Your task to perform on an android device: Clear all items from cart on target.com. Search for "logitech g903" on target.com, select the first entry, add it to the cart, then select checkout. Image 0: 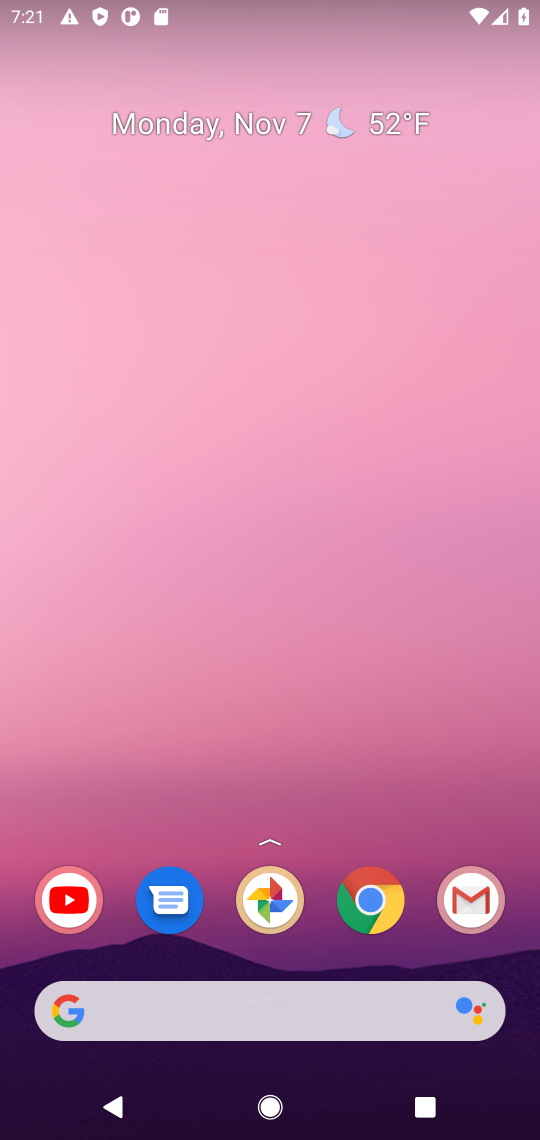
Step 0: click (377, 905)
Your task to perform on an android device: Clear all items from cart on target.com. Search for "logitech g903" on target.com, select the first entry, add it to the cart, then select checkout. Image 1: 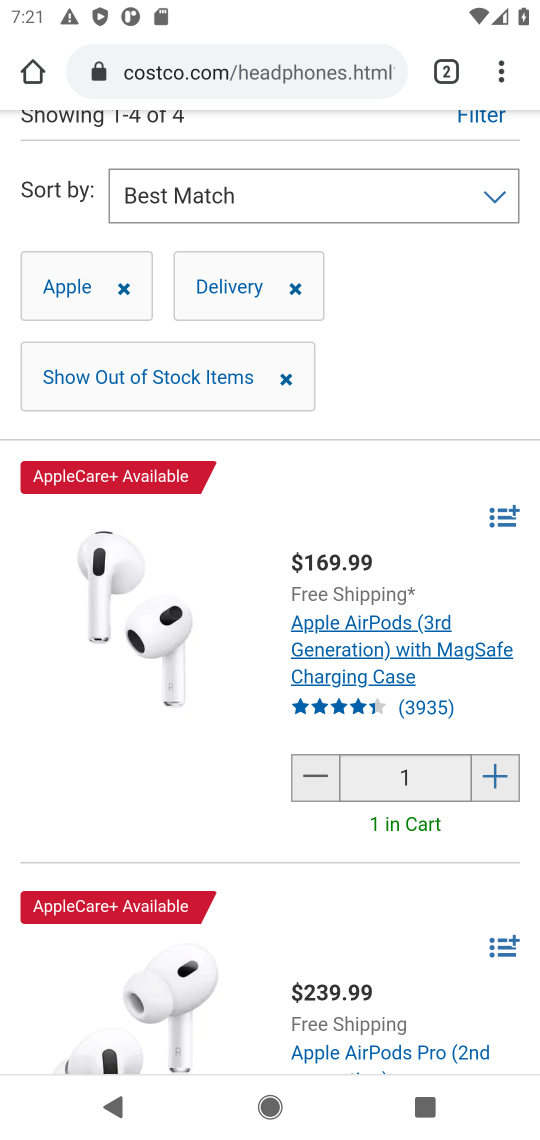
Step 1: click (447, 78)
Your task to perform on an android device: Clear all items from cart on target.com. Search for "logitech g903" on target.com, select the first entry, add it to the cart, then select checkout. Image 2: 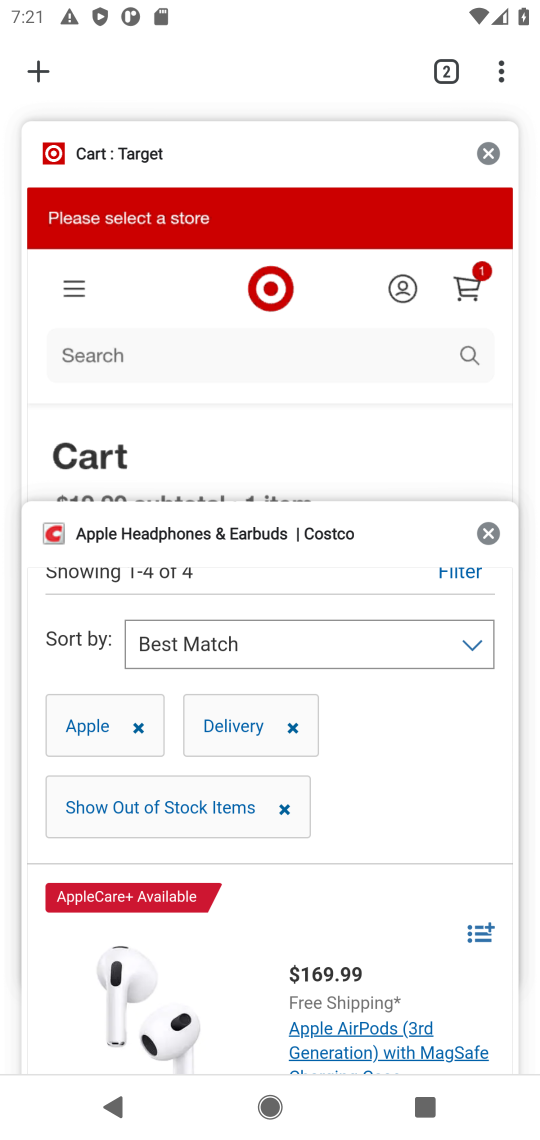
Step 2: click (46, 63)
Your task to perform on an android device: Clear all items from cart on target.com. Search for "logitech g903" on target.com, select the first entry, add it to the cart, then select checkout. Image 3: 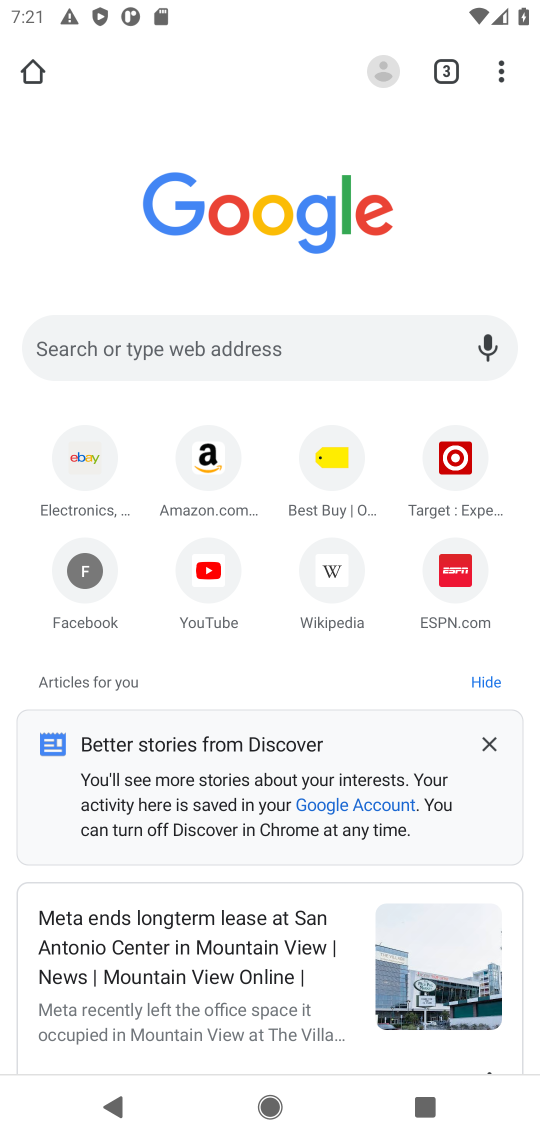
Step 3: click (456, 450)
Your task to perform on an android device: Clear all items from cart on target.com. Search for "logitech g903" on target.com, select the first entry, add it to the cart, then select checkout. Image 4: 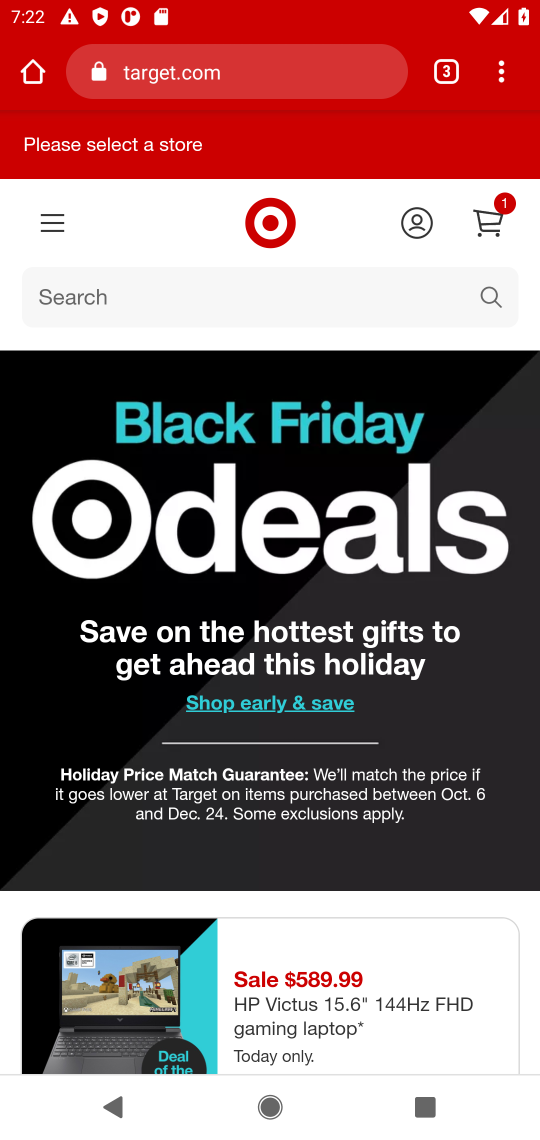
Step 4: click (118, 296)
Your task to perform on an android device: Clear all items from cart on target.com. Search for "logitech g903" on target.com, select the first entry, add it to the cart, then select checkout. Image 5: 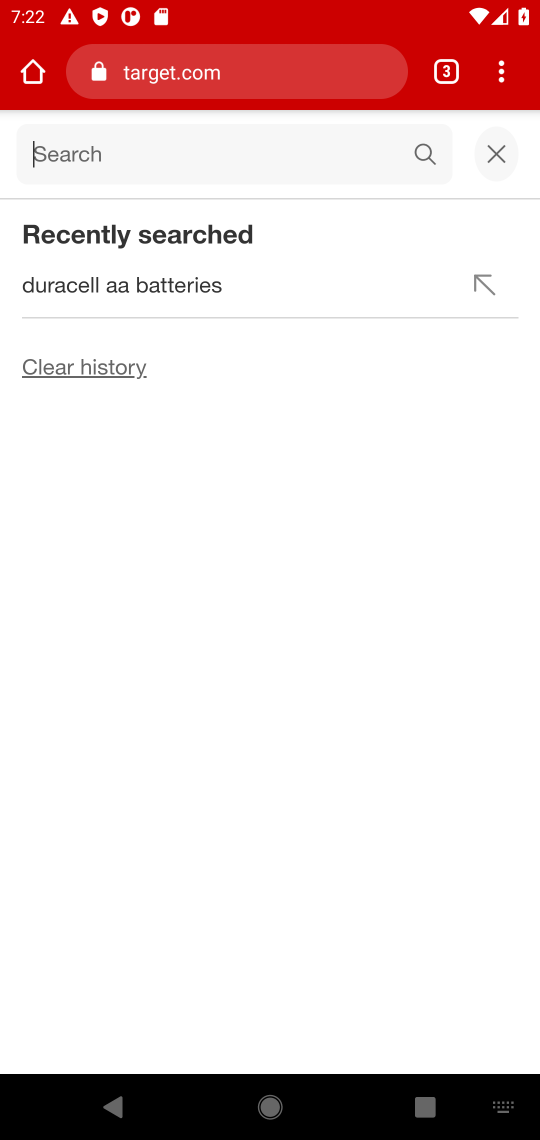
Step 5: click (42, 151)
Your task to perform on an android device: Clear all items from cart on target.com. Search for "logitech g903" on target.com, select the first entry, add it to the cart, then select checkout. Image 6: 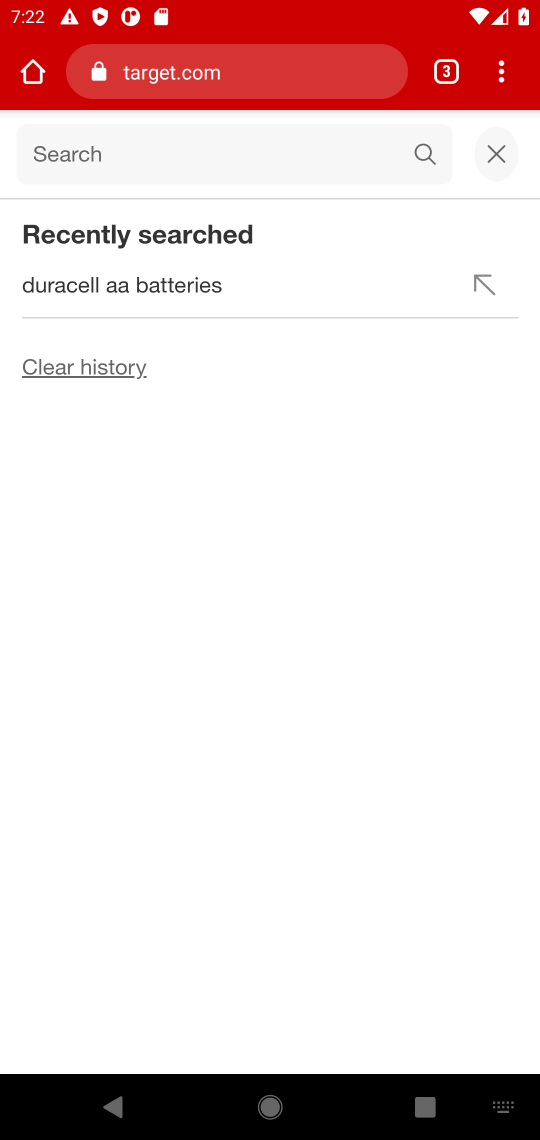
Step 6: type "logitech g903"
Your task to perform on an android device: Clear all items from cart on target.com. Search for "logitech g903" on target.com, select the first entry, add it to the cart, then select checkout. Image 7: 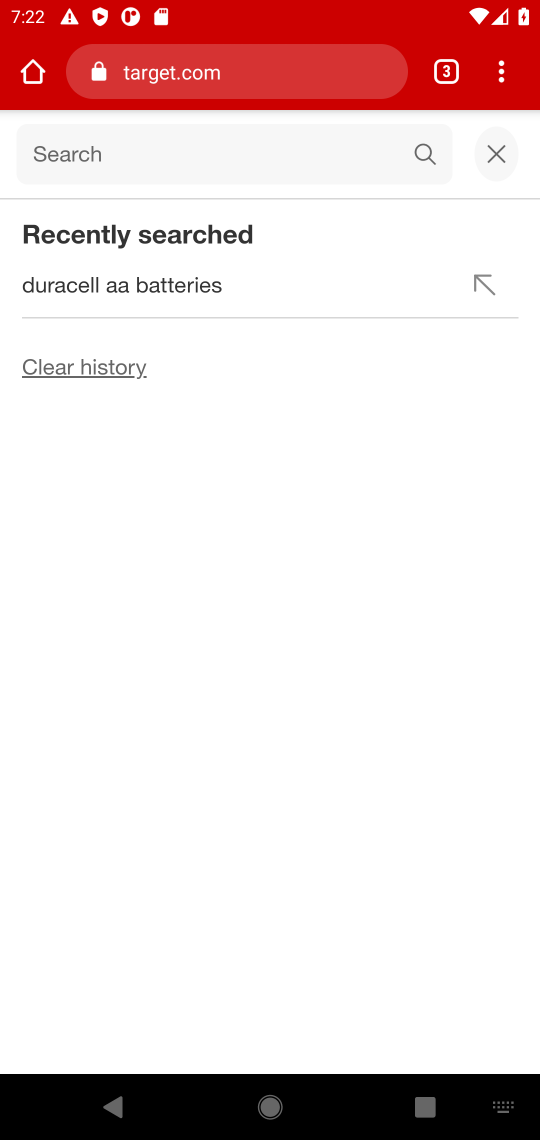
Step 7: click (306, 665)
Your task to perform on an android device: Clear all items from cart on target.com. Search for "logitech g903" on target.com, select the first entry, add it to the cart, then select checkout. Image 8: 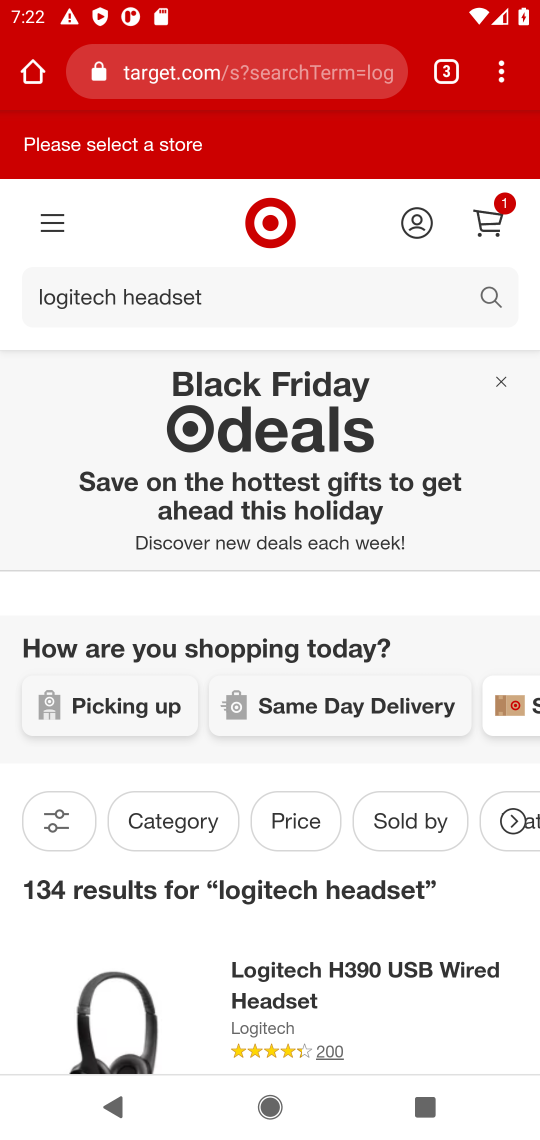
Step 8: click (322, 289)
Your task to perform on an android device: Clear all items from cart on target.com. Search for "logitech g903" on target.com, select the first entry, add it to the cart, then select checkout. Image 9: 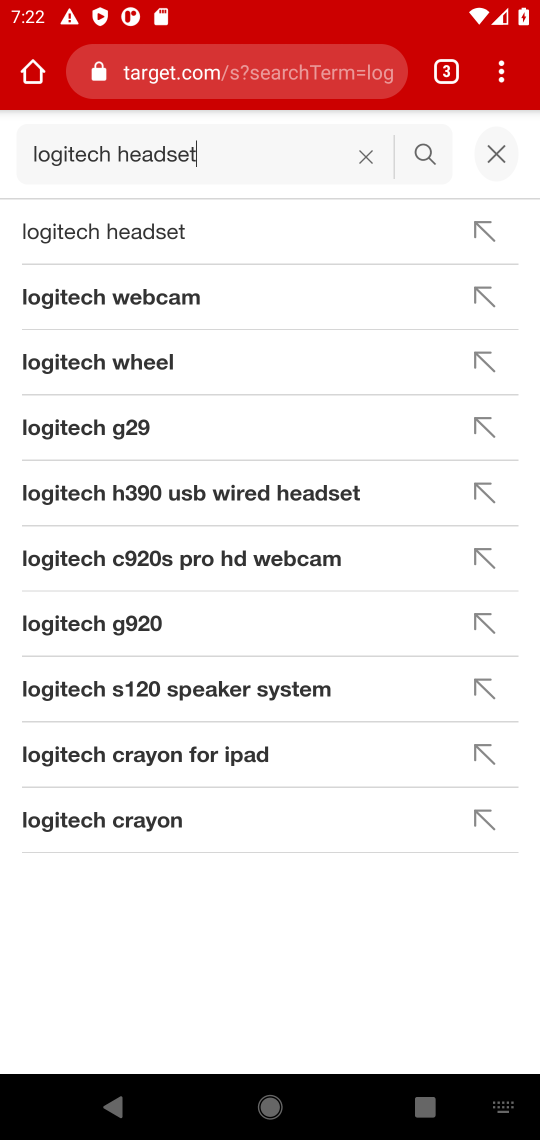
Step 9: click (499, 164)
Your task to perform on an android device: Clear all items from cart on target.com. Search for "logitech g903" on target.com, select the first entry, add it to the cart, then select checkout. Image 10: 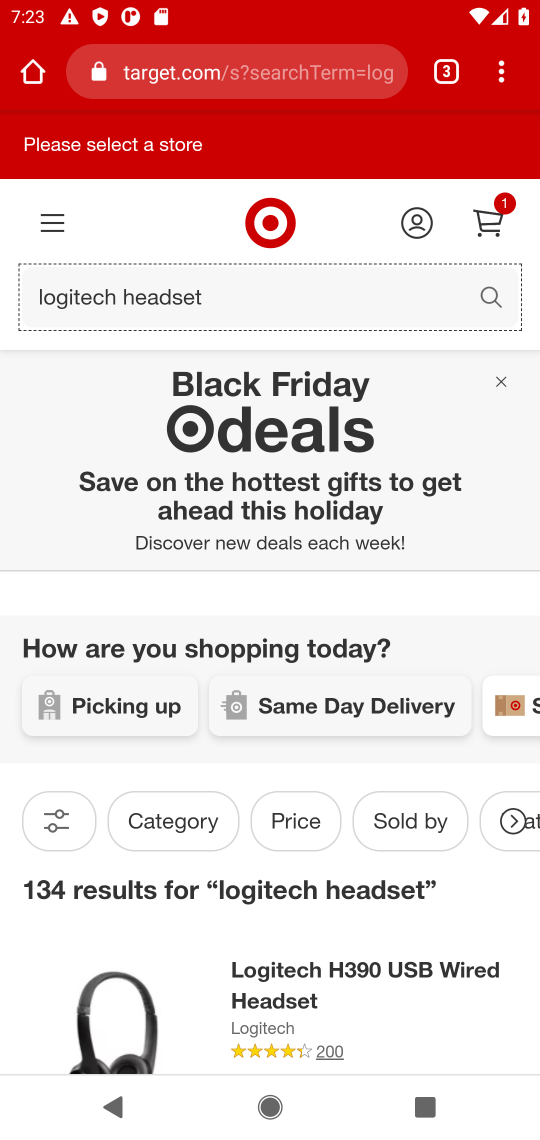
Step 10: click (247, 310)
Your task to perform on an android device: Clear all items from cart on target.com. Search for "logitech g903" on target.com, select the first entry, add it to the cart, then select checkout. Image 11: 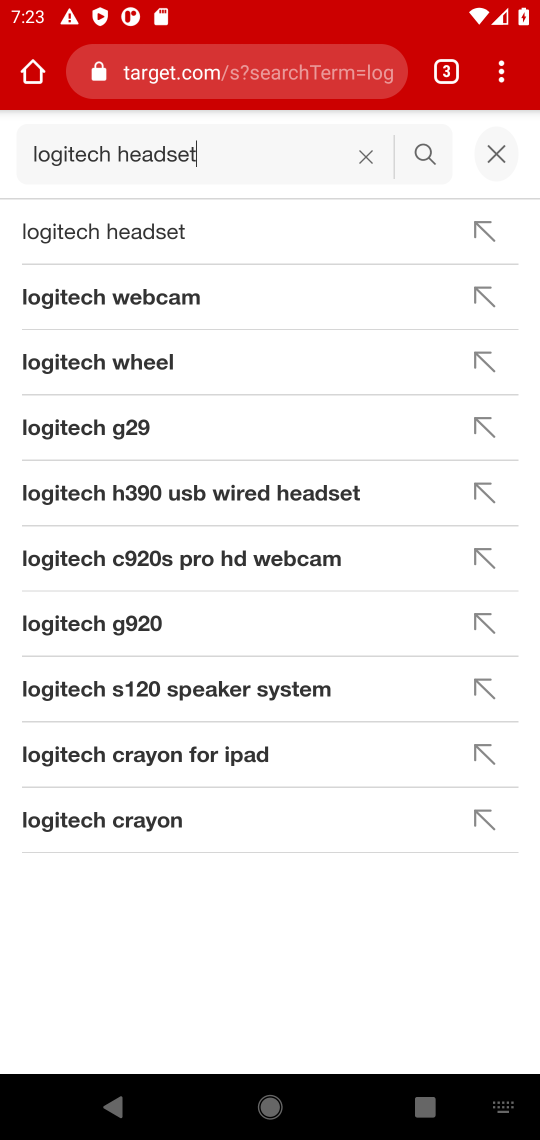
Step 11: click (488, 142)
Your task to perform on an android device: Clear all items from cart on target.com. Search for "logitech g903" on target.com, select the first entry, add it to the cart, then select checkout. Image 12: 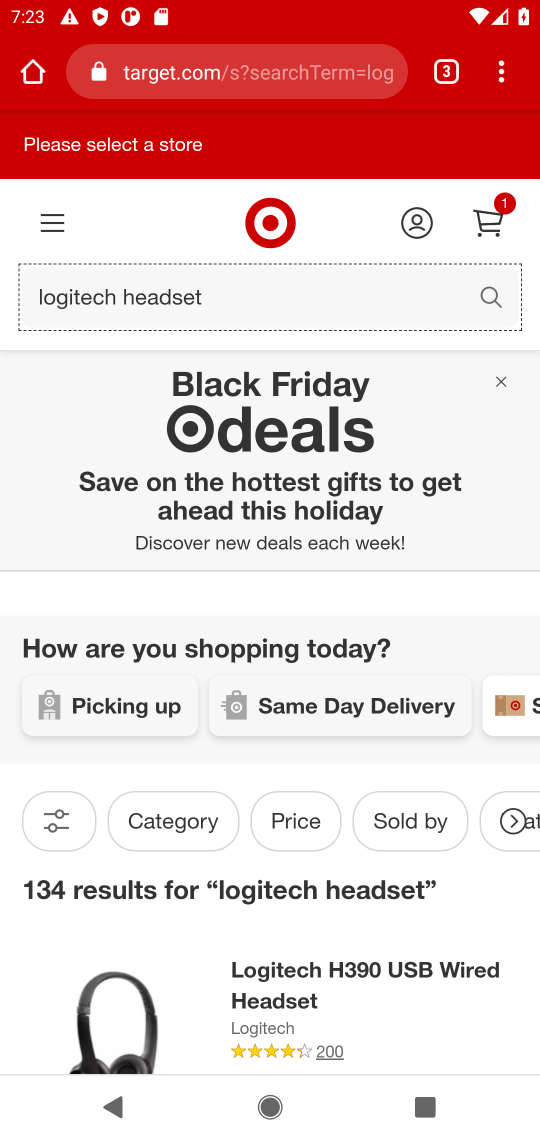
Step 12: click (114, 291)
Your task to perform on an android device: Clear all items from cart on target.com. Search for "logitech g903" on target.com, select the first entry, add it to the cart, then select checkout. Image 13: 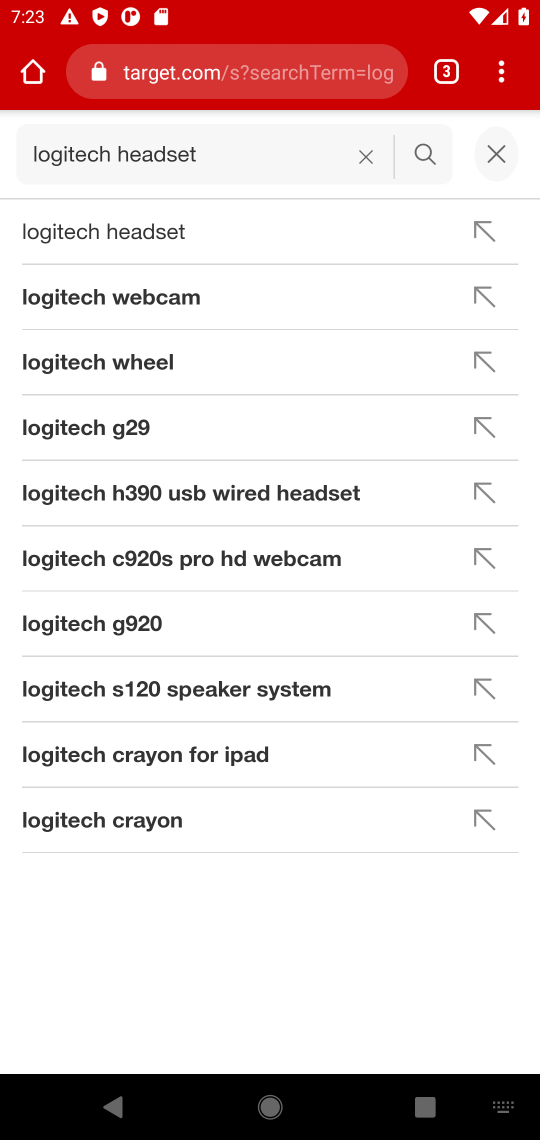
Step 13: click (483, 162)
Your task to perform on an android device: Clear all items from cart on target.com. Search for "logitech g903" on target.com, select the first entry, add it to the cart, then select checkout. Image 14: 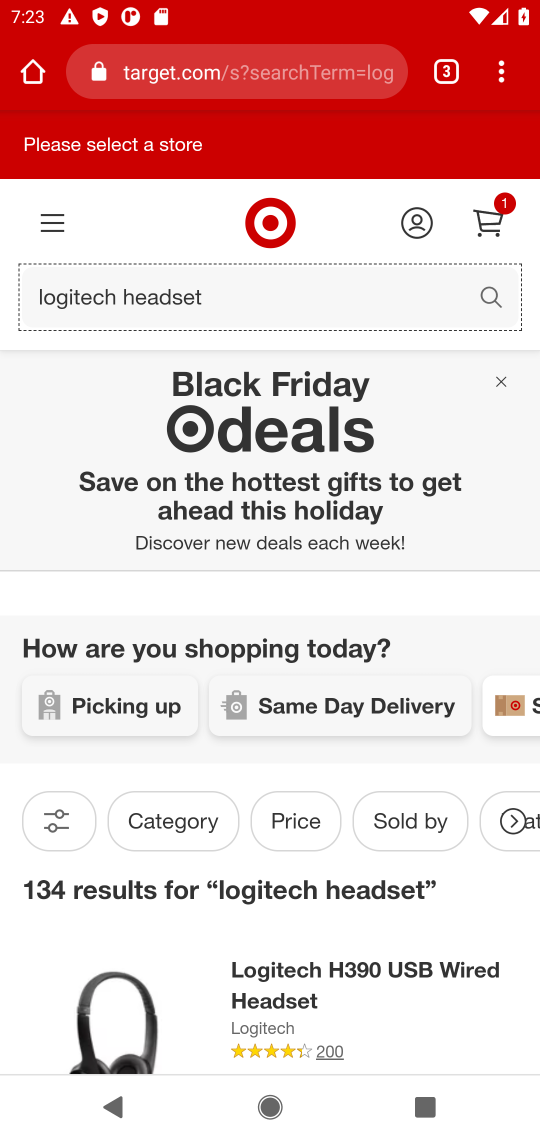
Step 14: click (303, 298)
Your task to perform on an android device: Clear all items from cart on target.com. Search for "logitech g903" on target.com, select the first entry, add it to the cart, then select checkout. Image 15: 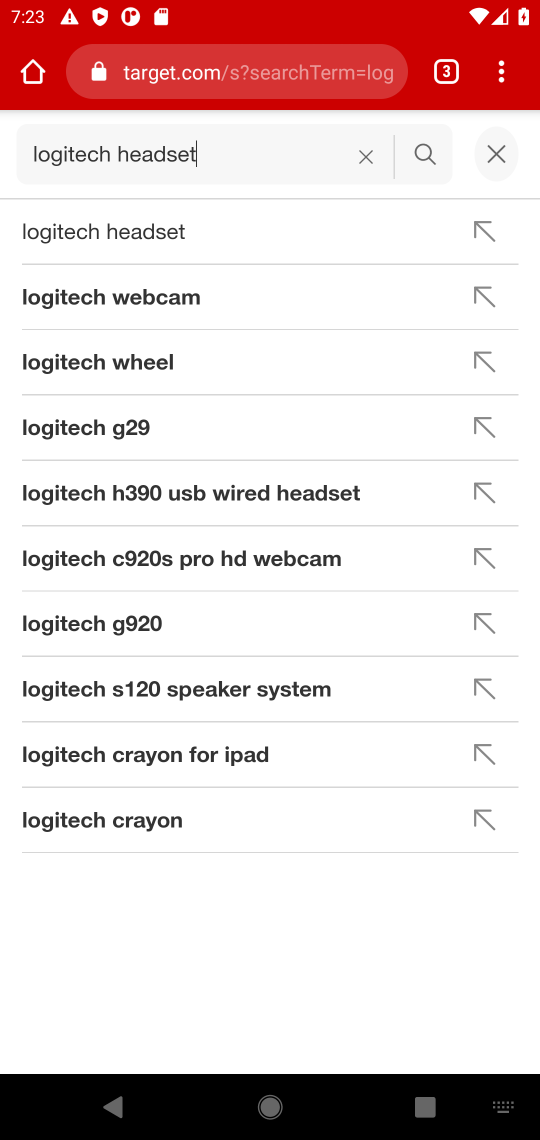
Step 15: click (352, 159)
Your task to perform on an android device: Clear all items from cart on target.com. Search for "logitech g903" on target.com, select the first entry, add it to the cart, then select checkout. Image 16: 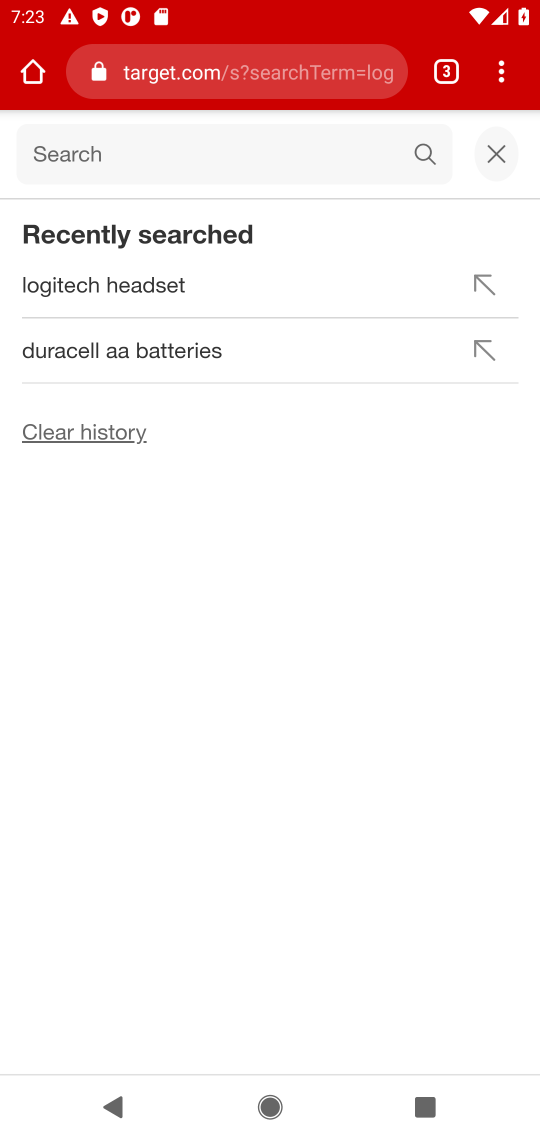
Step 16: click (116, 160)
Your task to perform on an android device: Clear all items from cart on target.com. Search for "logitech g903" on target.com, select the first entry, add it to the cart, then select checkout. Image 17: 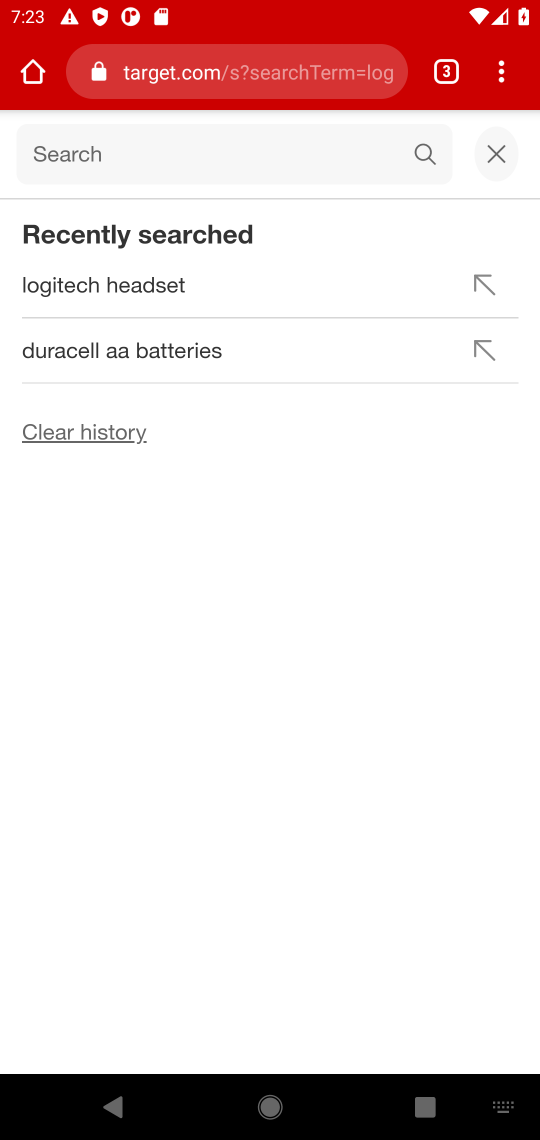
Step 17: type "logitech g903"
Your task to perform on an android device: Clear all items from cart on target.com. Search for "logitech g903" on target.com, select the first entry, add it to the cart, then select checkout. Image 18: 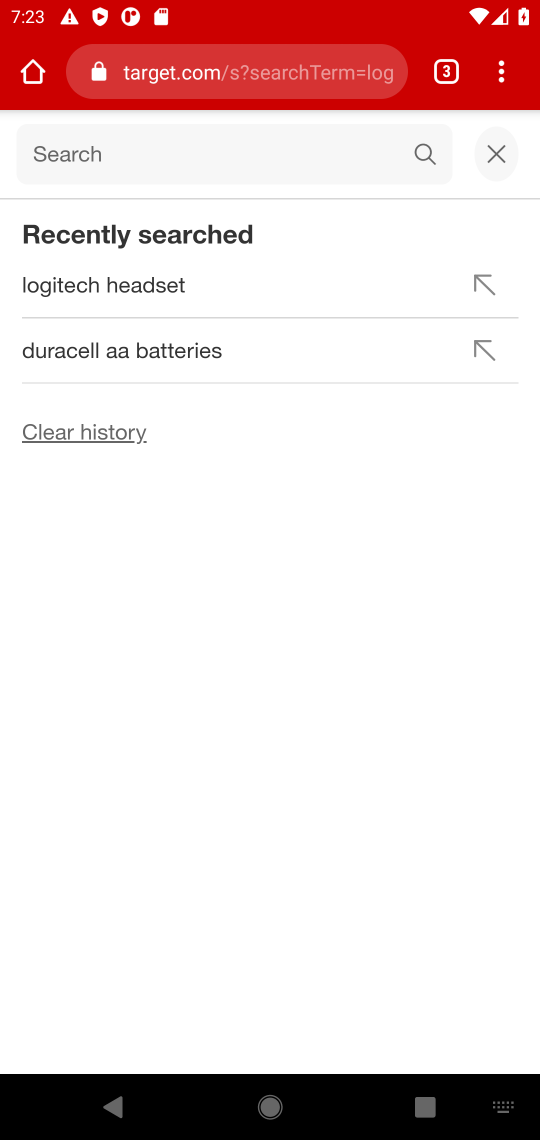
Step 18: click (239, 757)
Your task to perform on an android device: Clear all items from cart on target.com. Search for "logitech g903" on target.com, select the first entry, add it to the cart, then select checkout. Image 19: 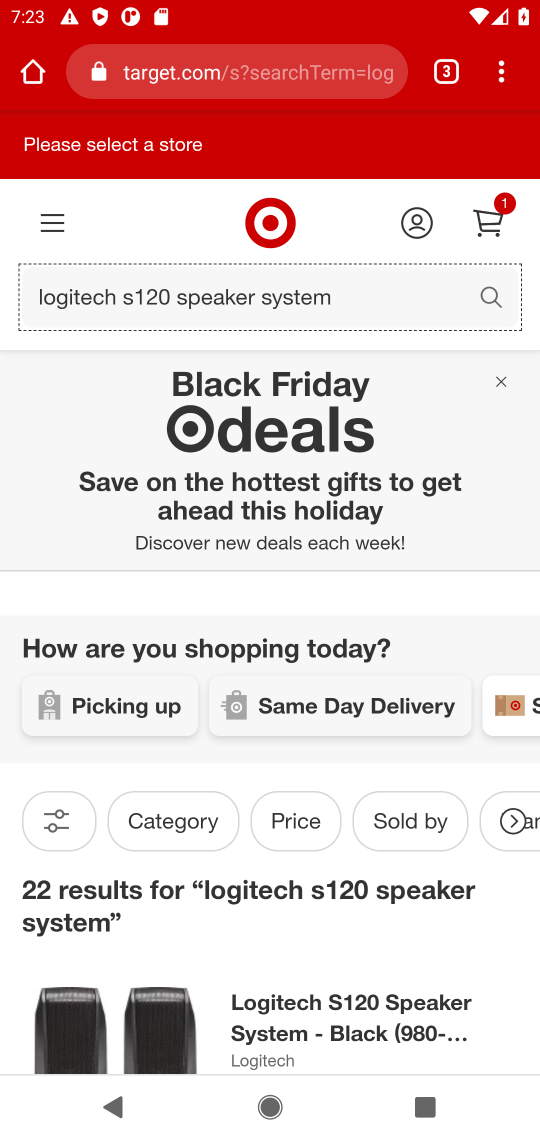
Step 19: click (378, 324)
Your task to perform on an android device: Clear all items from cart on target.com. Search for "logitech g903" on target.com, select the first entry, add it to the cart, then select checkout. Image 20: 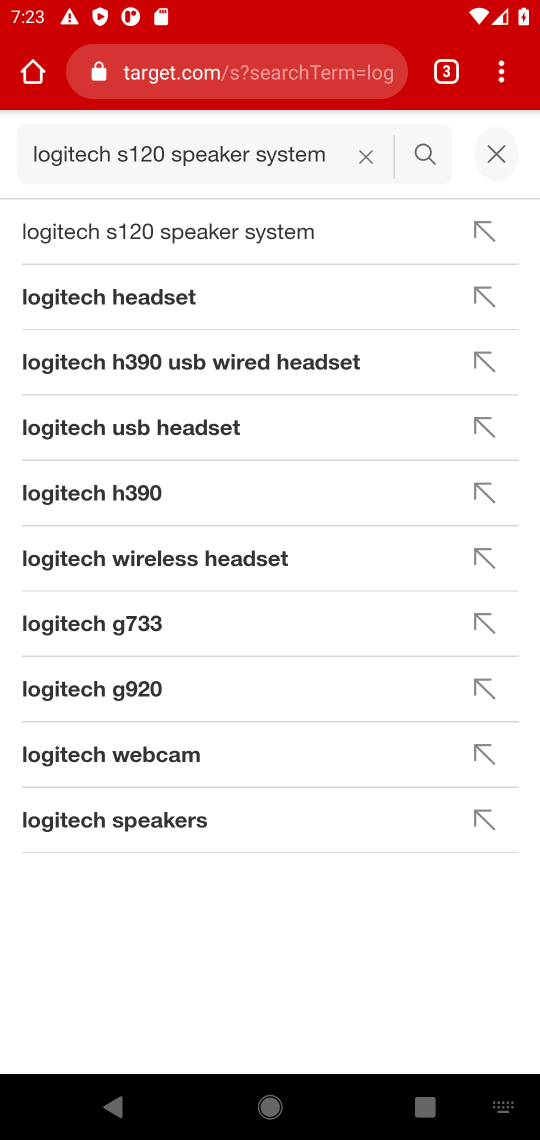
Step 20: click (502, 148)
Your task to perform on an android device: Clear all items from cart on target.com. Search for "logitech g903" on target.com, select the first entry, add it to the cart, then select checkout. Image 21: 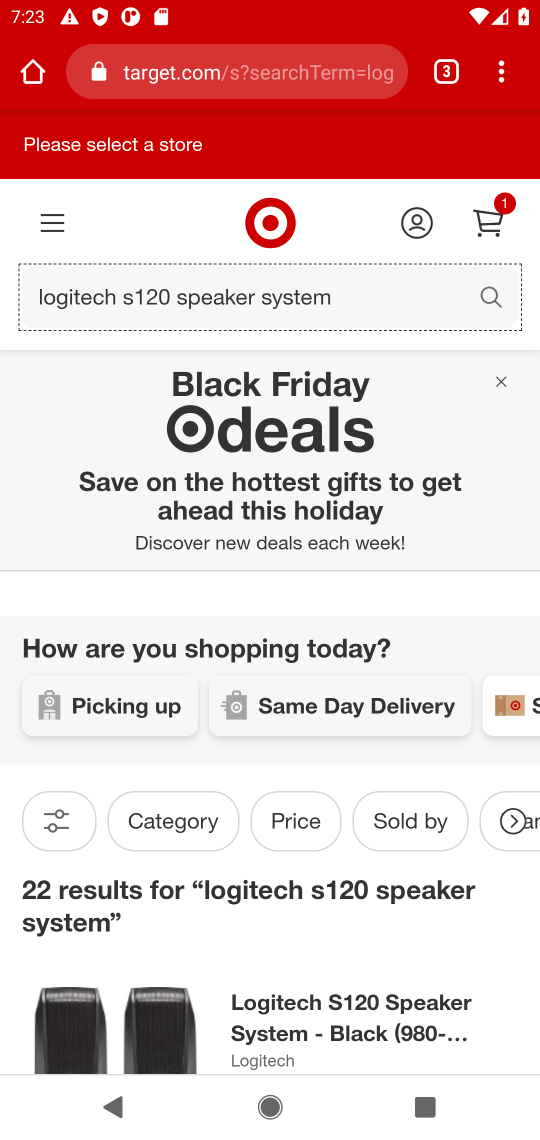
Step 21: click (337, 304)
Your task to perform on an android device: Clear all items from cart on target.com. Search for "logitech g903" on target.com, select the first entry, add it to the cart, then select checkout. Image 22: 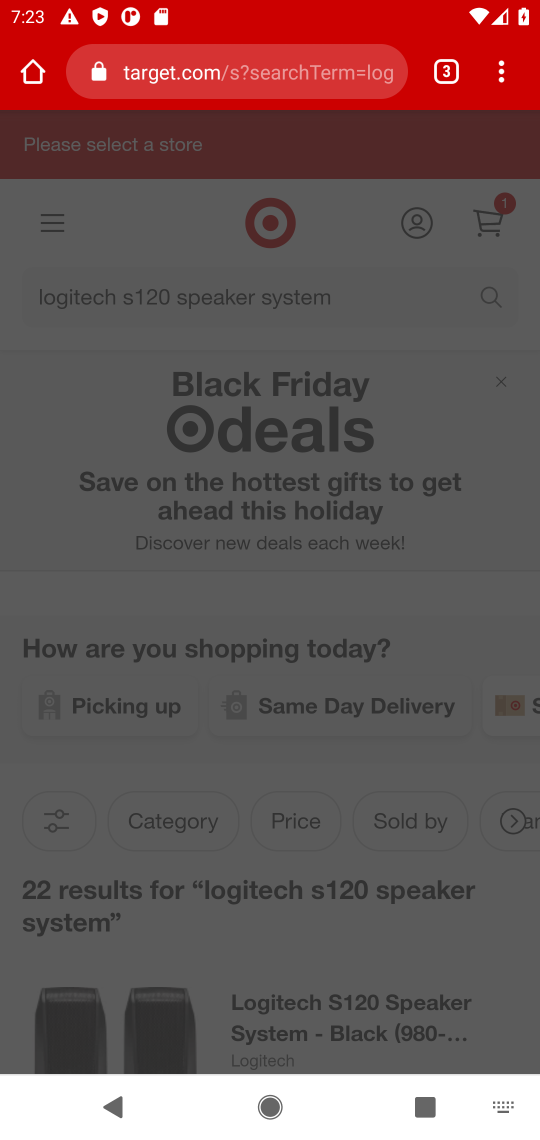
Step 22: task complete